Your task to perform on an android device: clear history in the chrome app Image 0: 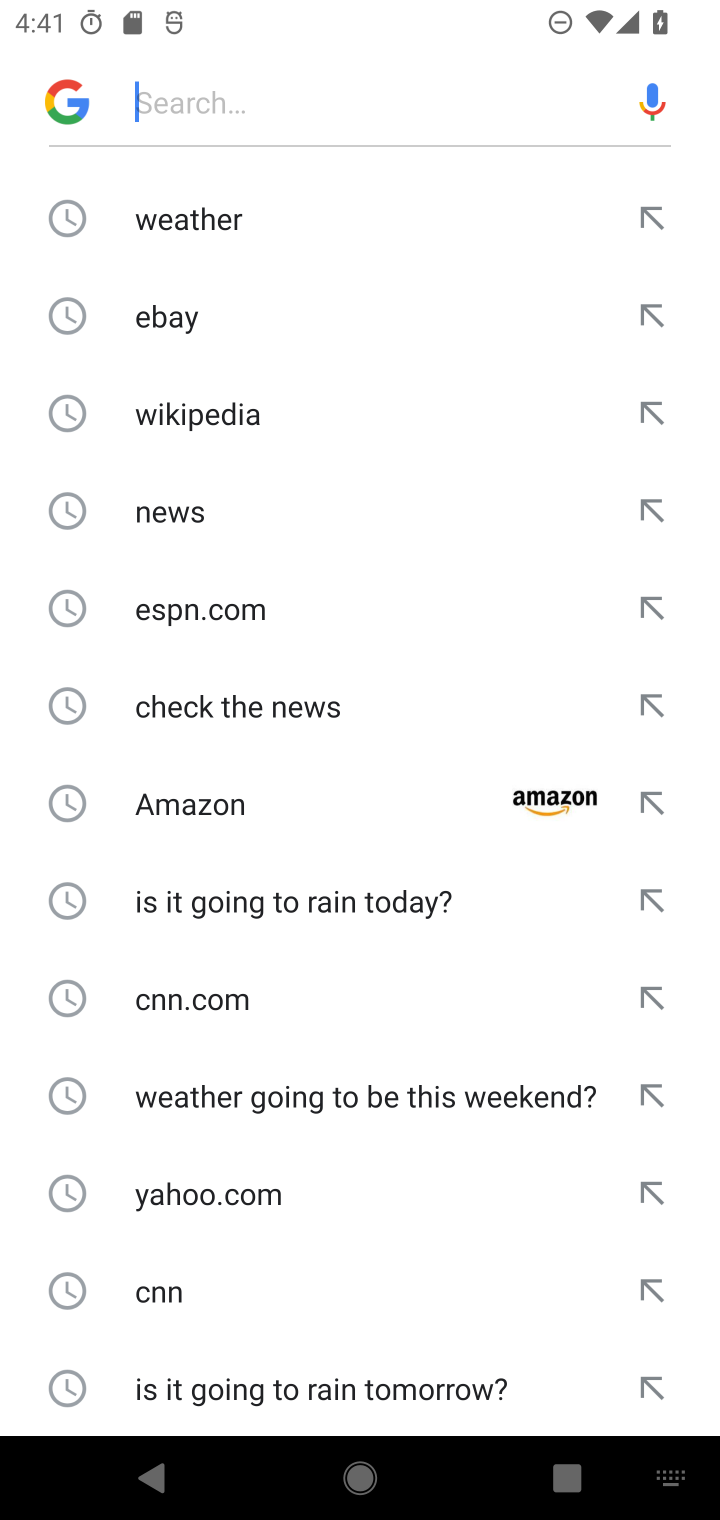
Step 0: press home button
Your task to perform on an android device: clear history in the chrome app Image 1: 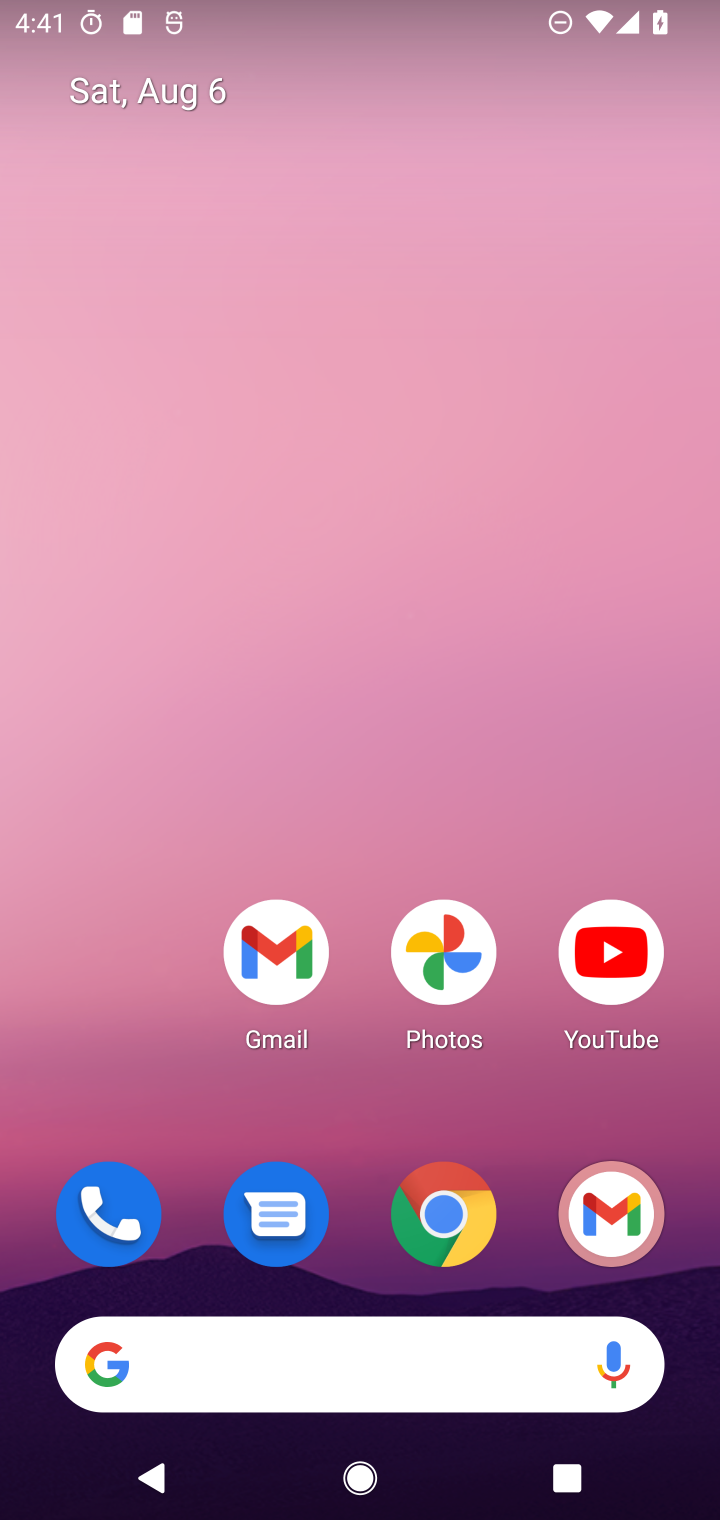
Step 1: click (438, 1225)
Your task to perform on an android device: clear history in the chrome app Image 2: 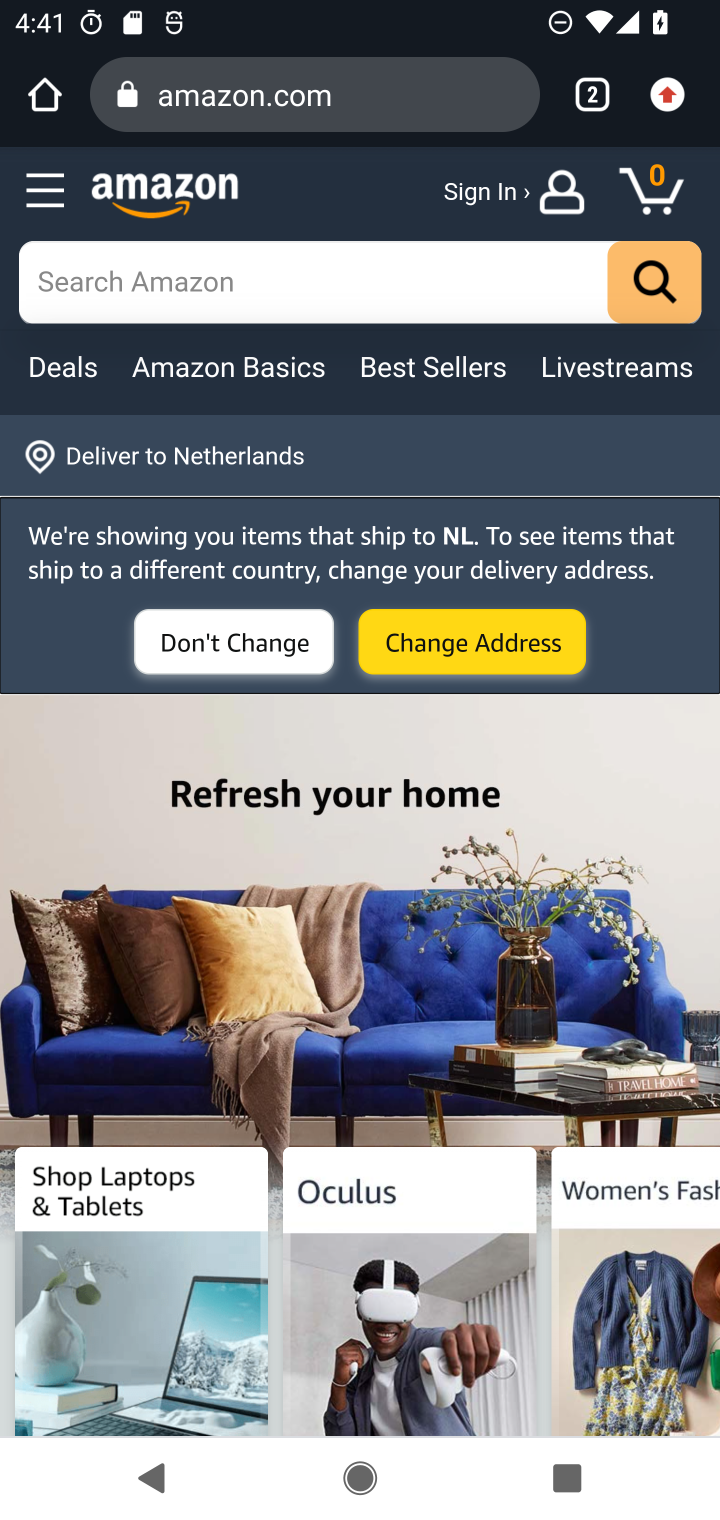
Step 2: click (669, 96)
Your task to perform on an android device: clear history in the chrome app Image 3: 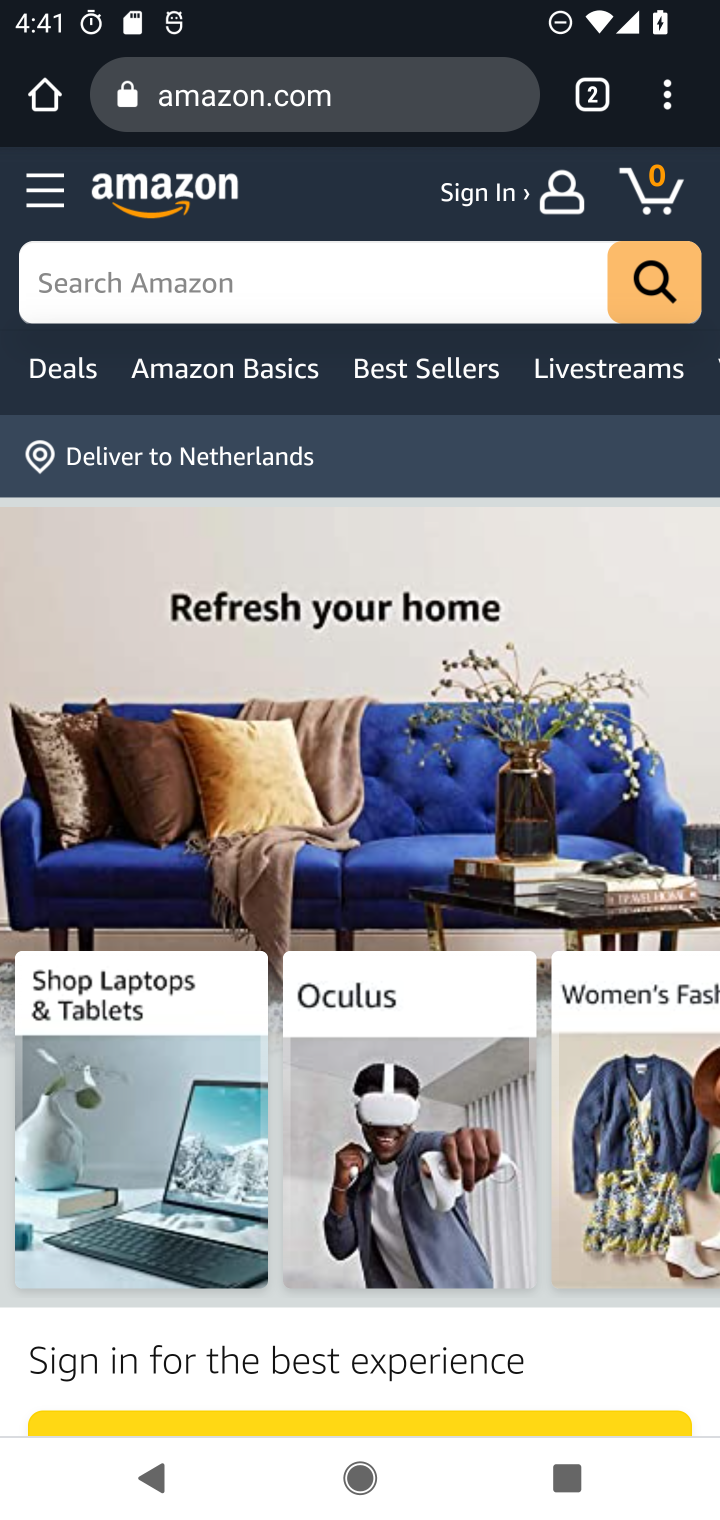
Step 3: click (669, 96)
Your task to perform on an android device: clear history in the chrome app Image 4: 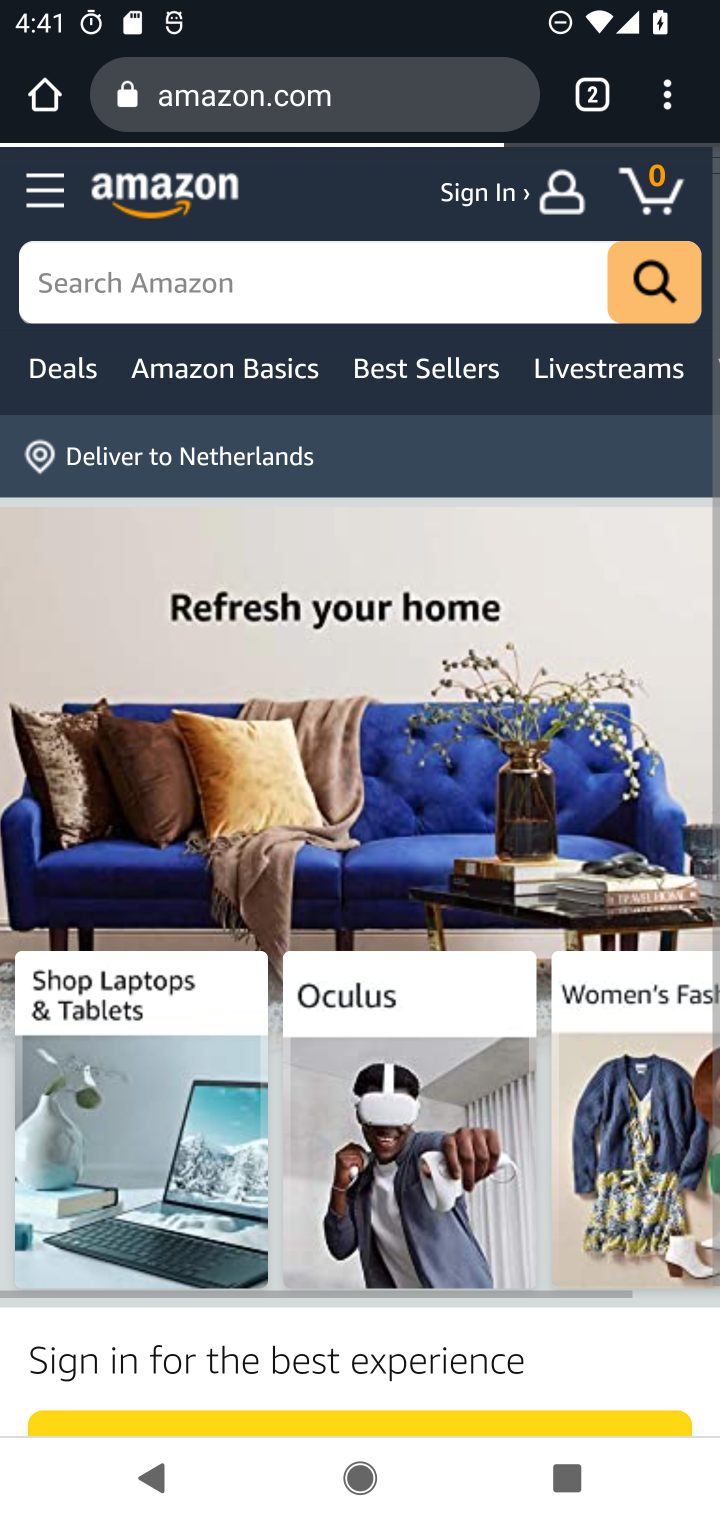
Step 4: click (584, 97)
Your task to perform on an android device: clear history in the chrome app Image 5: 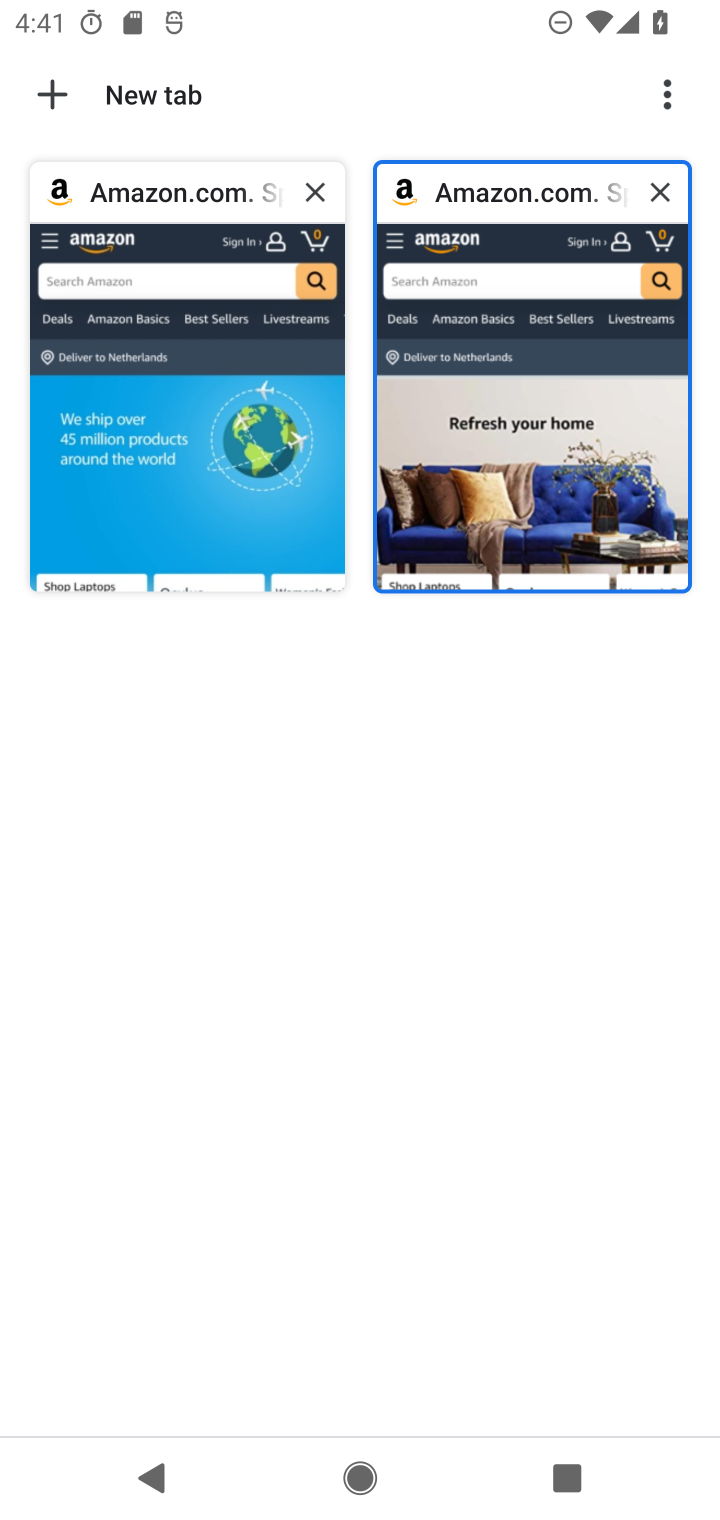
Step 5: click (660, 185)
Your task to perform on an android device: clear history in the chrome app Image 6: 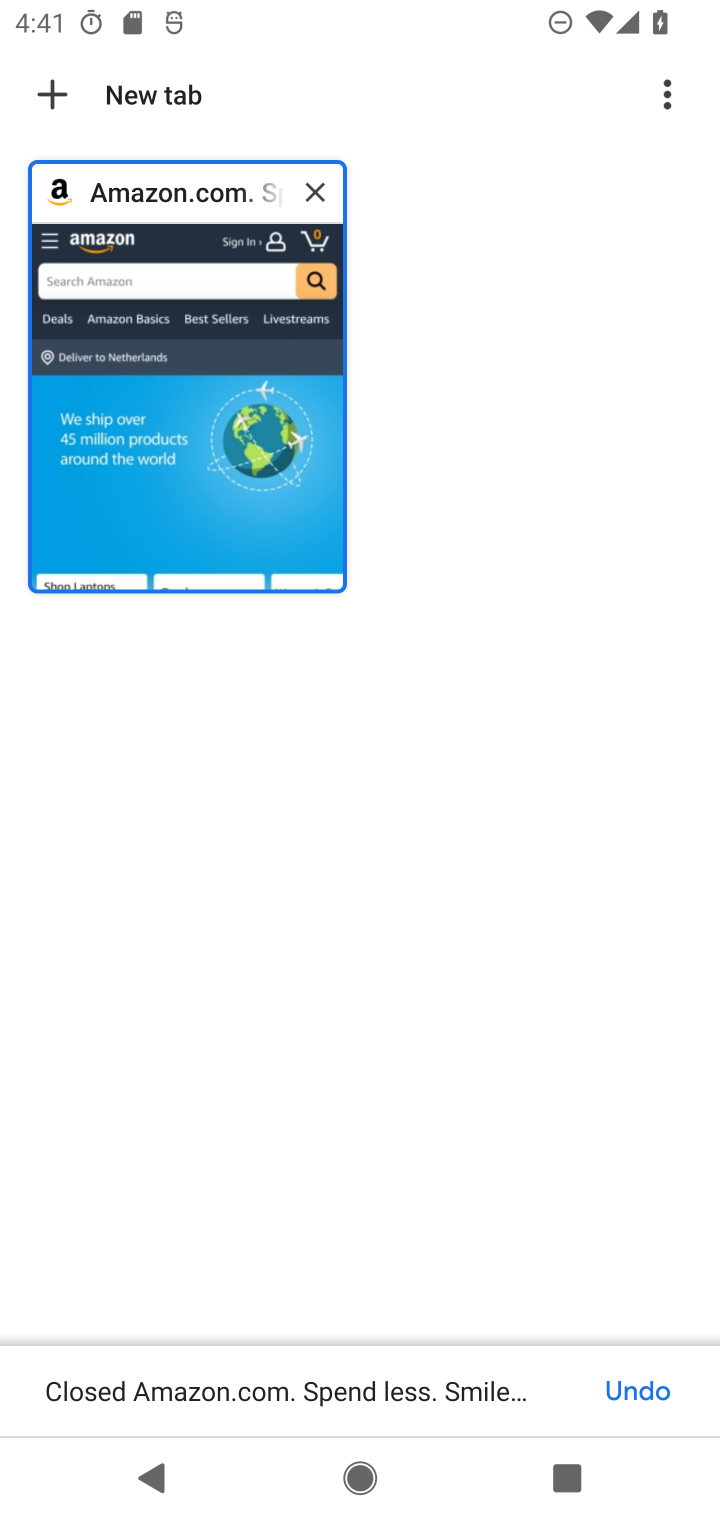
Step 6: click (313, 188)
Your task to perform on an android device: clear history in the chrome app Image 7: 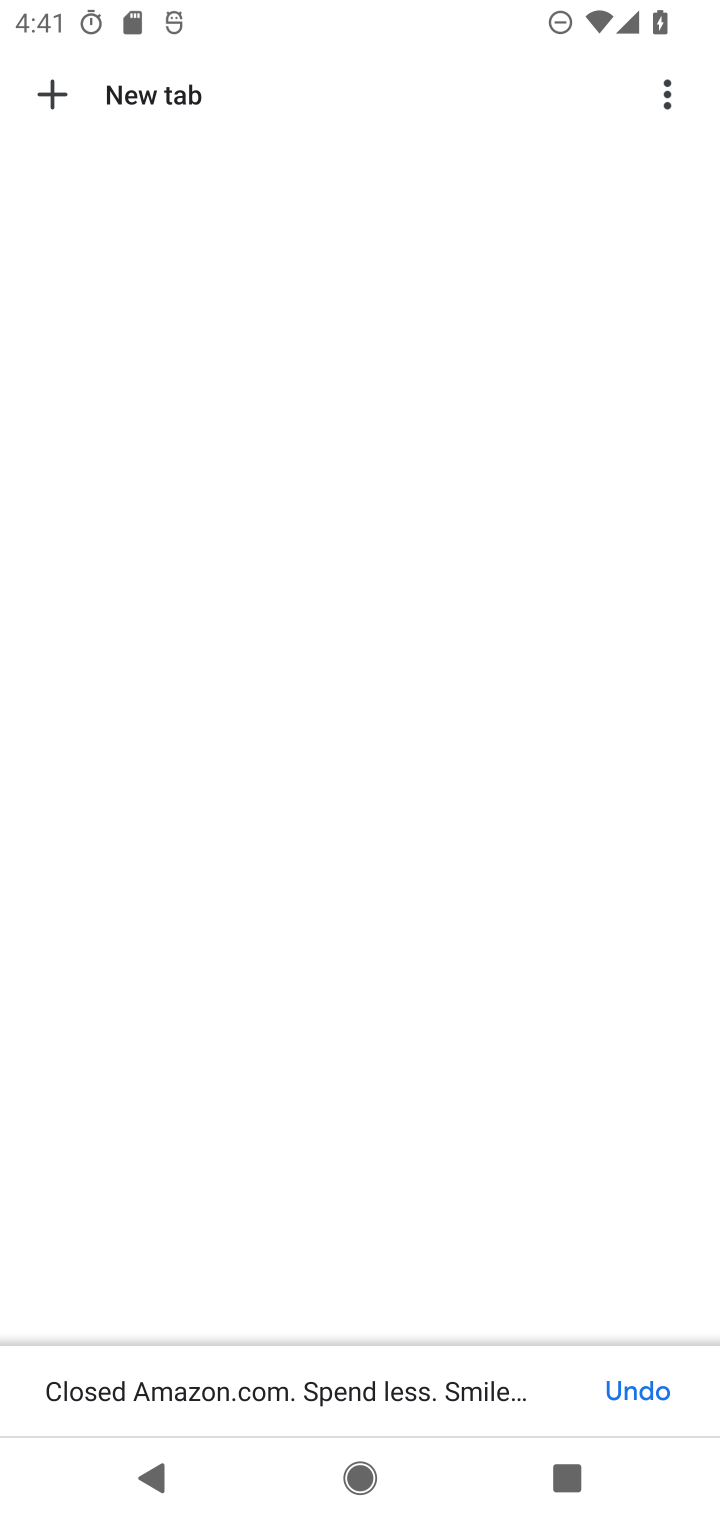
Step 7: click (44, 91)
Your task to perform on an android device: clear history in the chrome app Image 8: 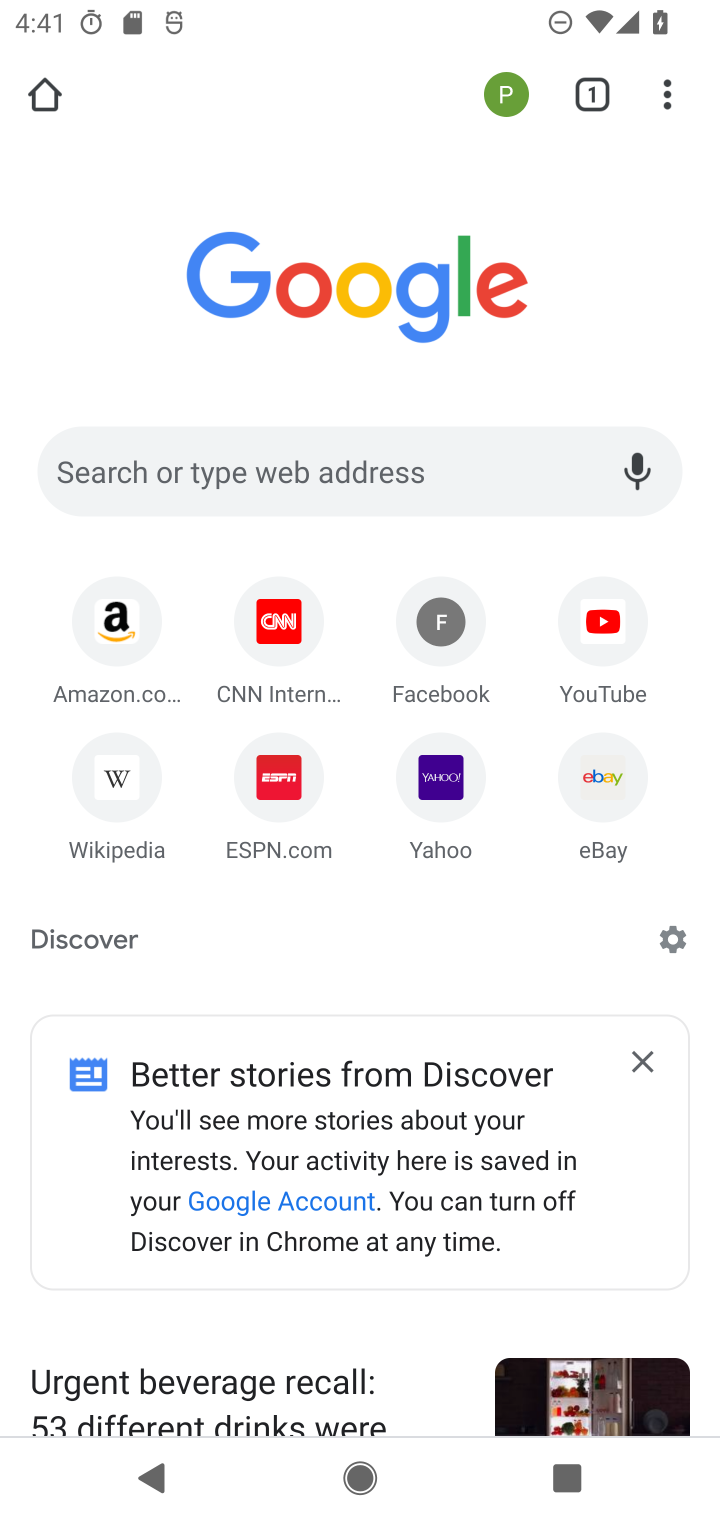
Step 8: click (671, 103)
Your task to perform on an android device: clear history in the chrome app Image 9: 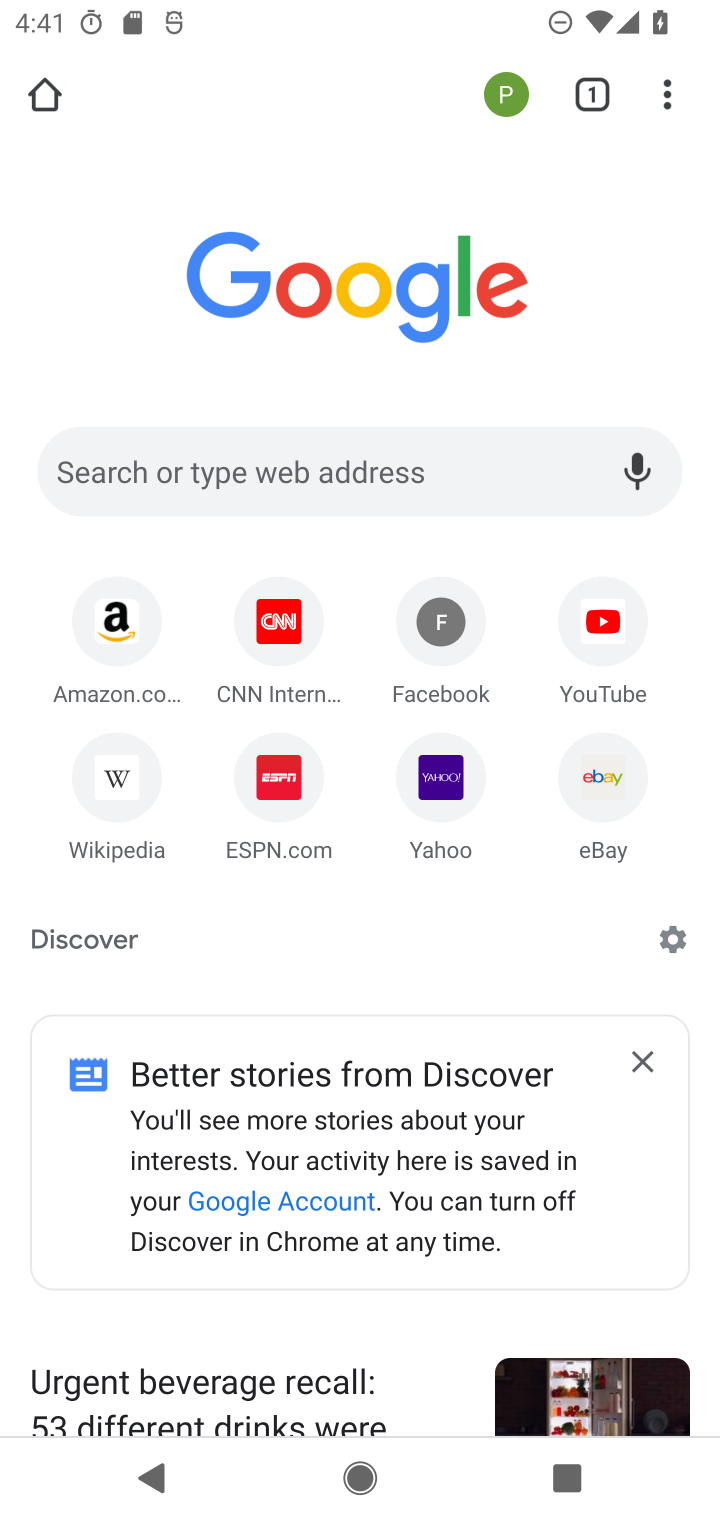
Step 9: click (659, 103)
Your task to perform on an android device: clear history in the chrome app Image 10: 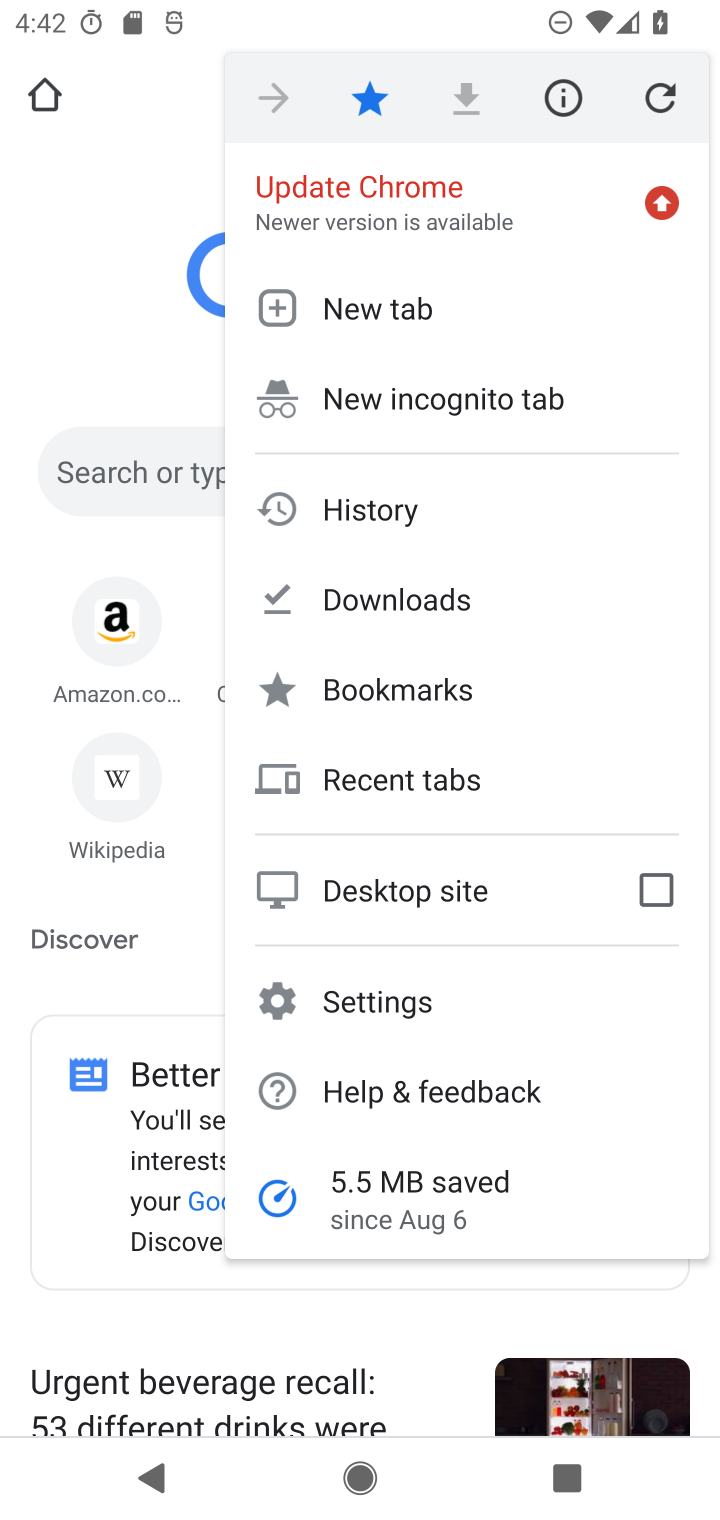
Step 10: click (378, 516)
Your task to perform on an android device: clear history in the chrome app Image 11: 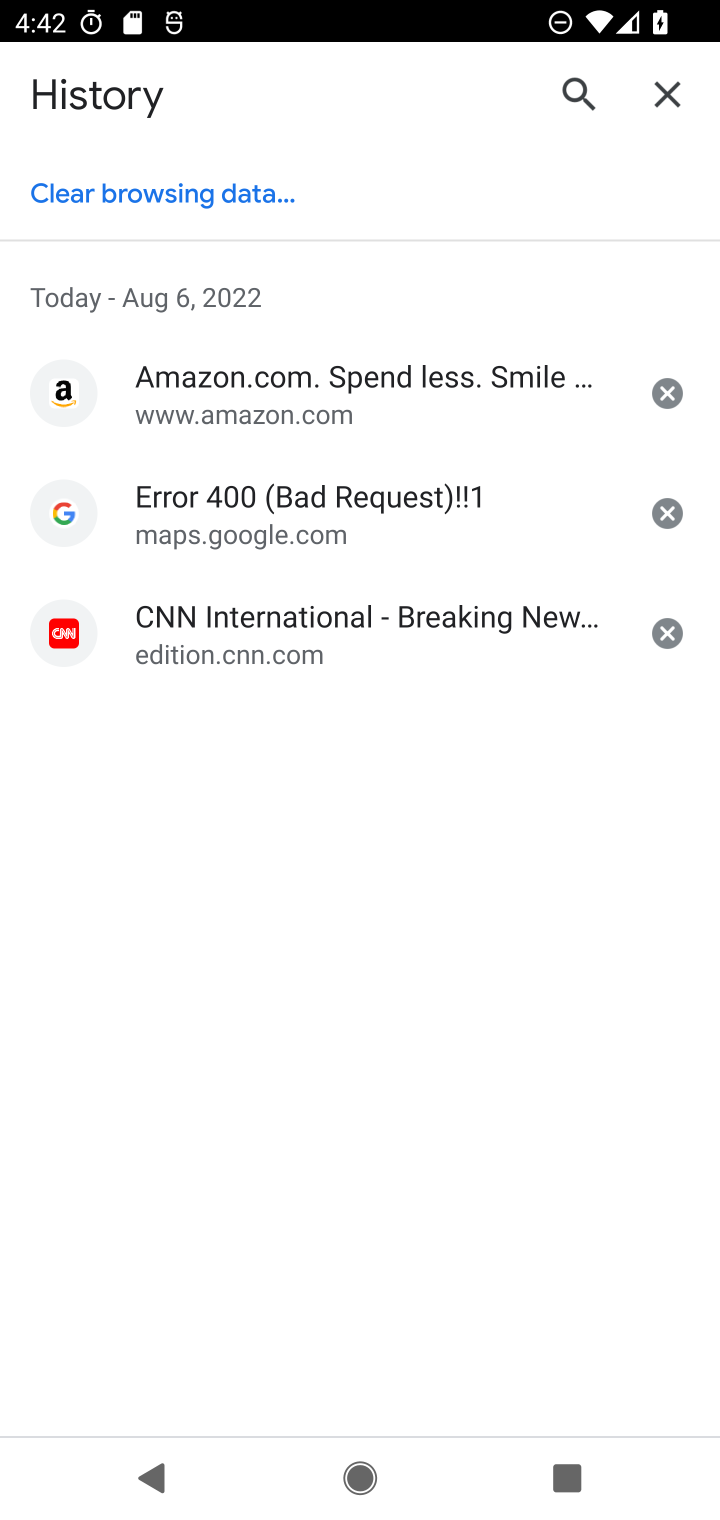
Step 11: click (217, 191)
Your task to perform on an android device: clear history in the chrome app Image 12: 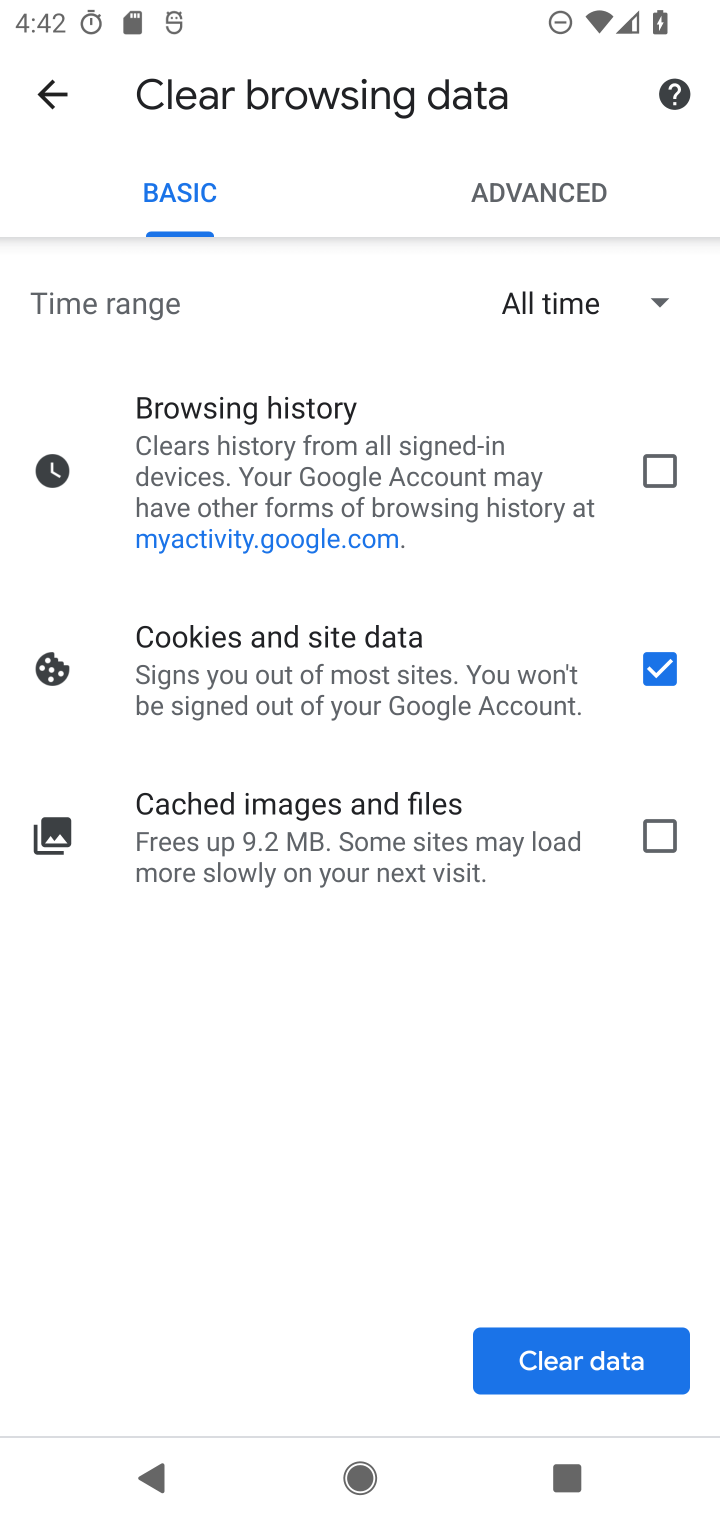
Step 12: click (658, 477)
Your task to perform on an android device: clear history in the chrome app Image 13: 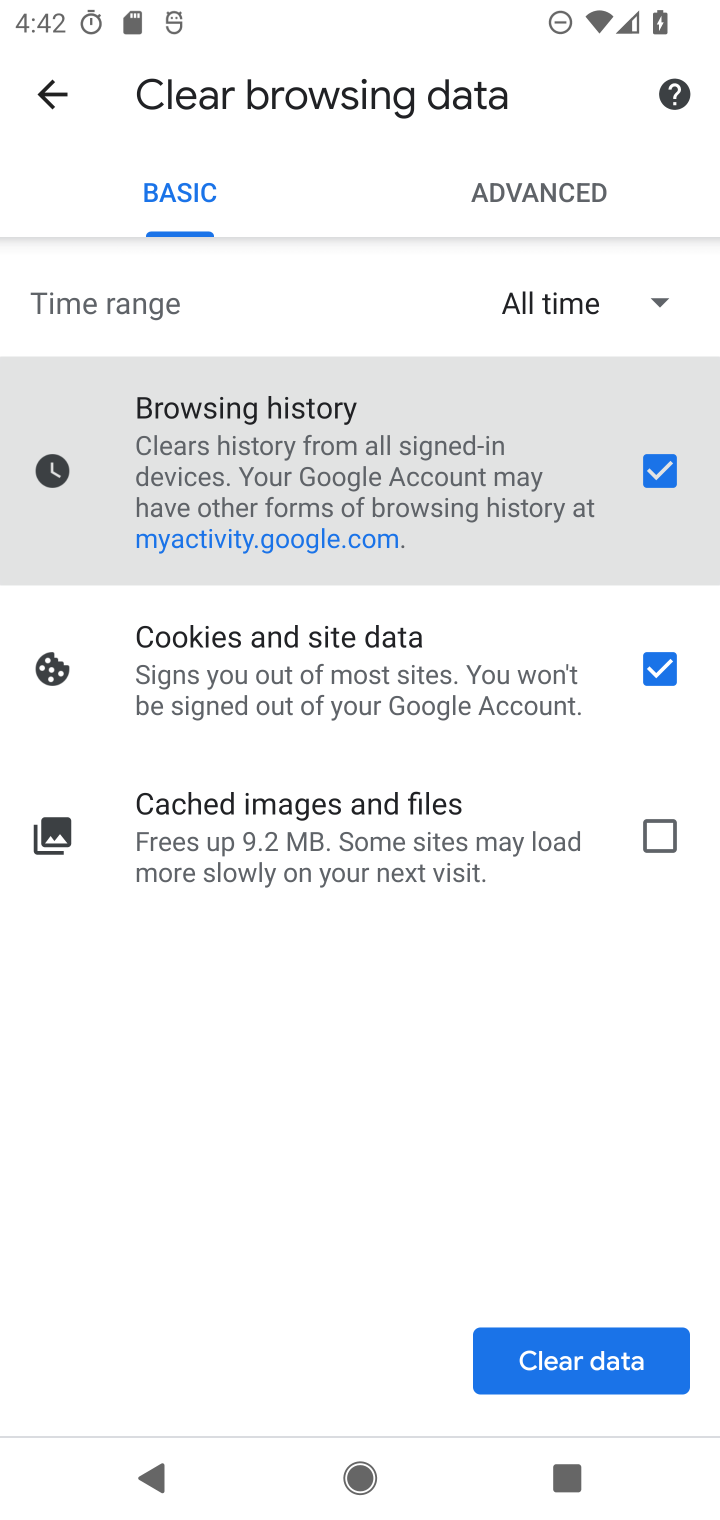
Step 13: click (674, 835)
Your task to perform on an android device: clear history in the chrome app Image 14: 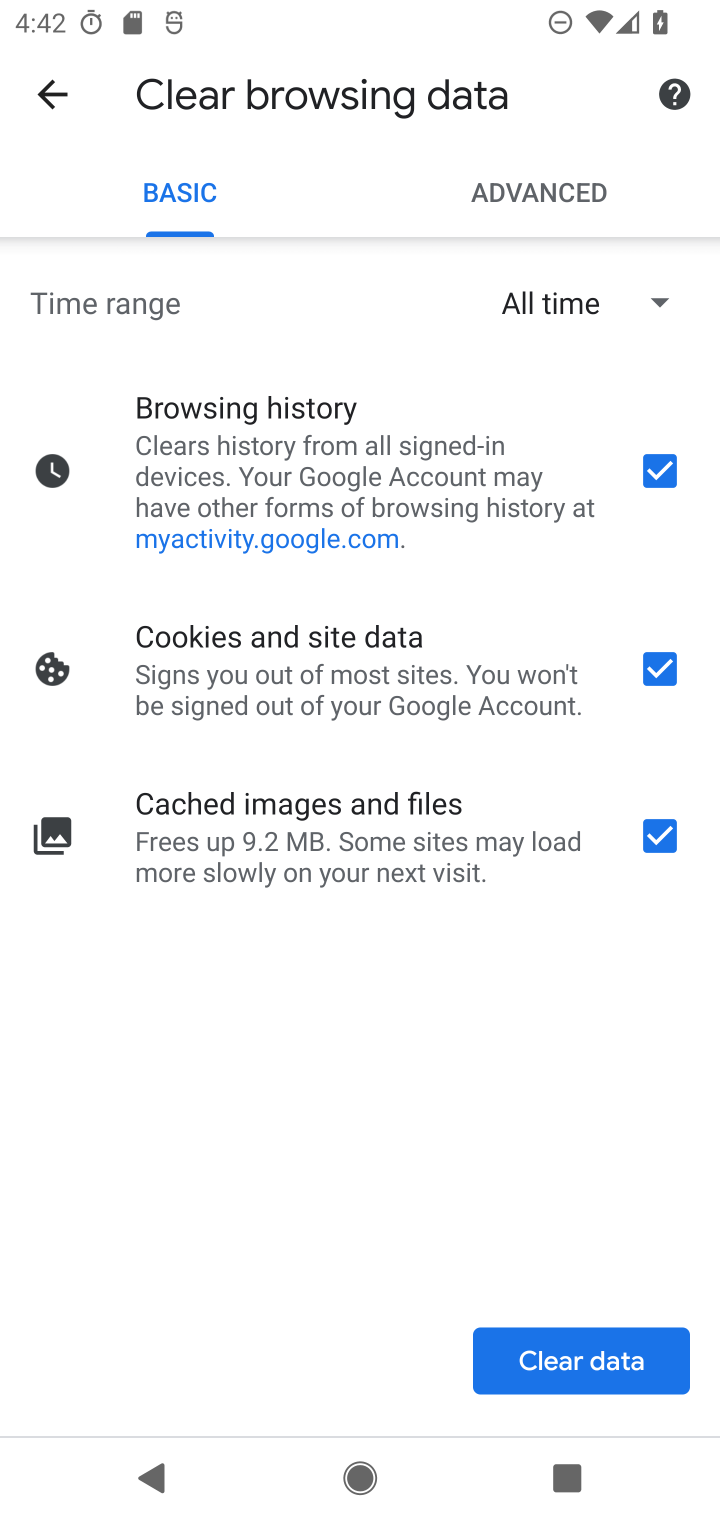
Step 14: click (514, 1362)
Your task to perform on an android device: clear history in the chrome app Image 15: 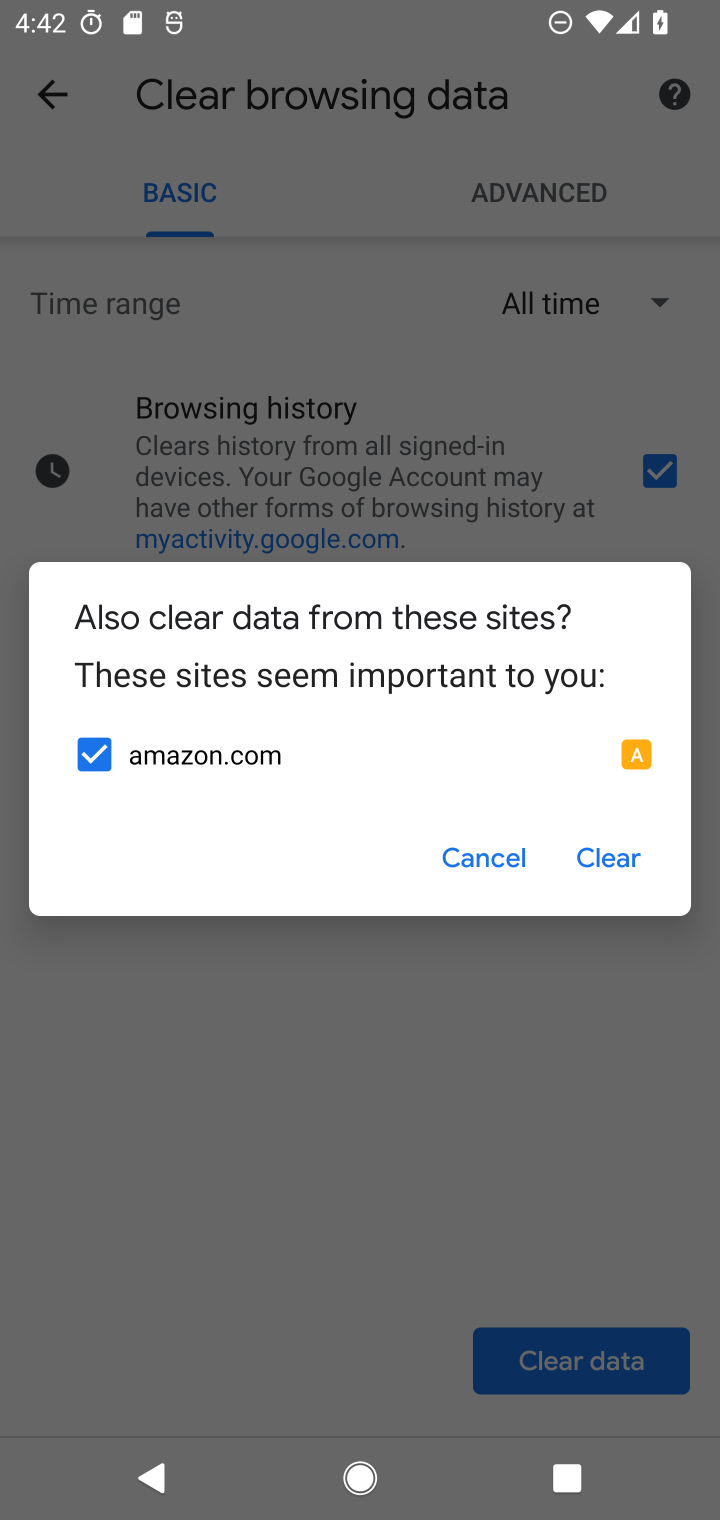
Step 15: click (622, 856)
Your task to perform on an android device: clear history in the chrome app Image 16: 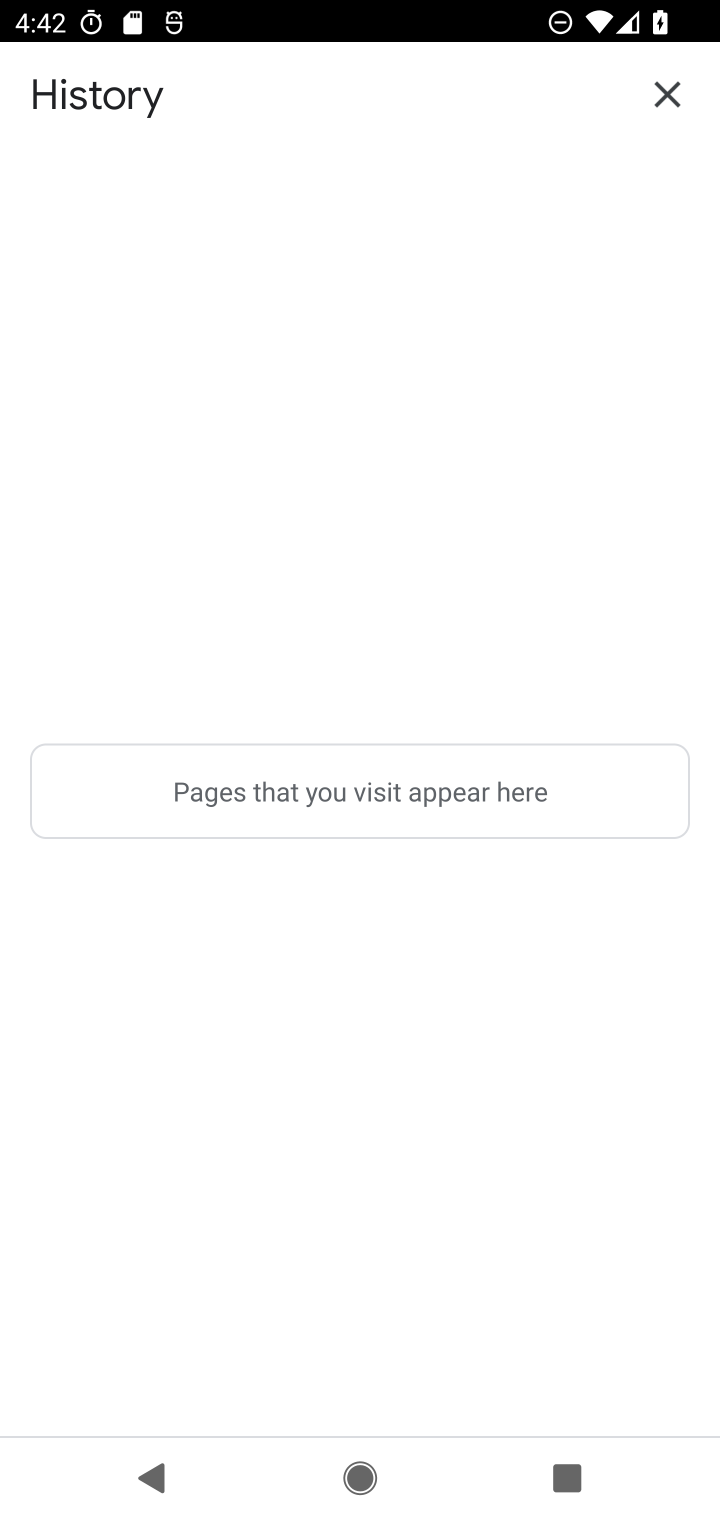
Step 16: task complete